Your task to perform on an android device: Search for Italian restaurants on Maps Image 0: 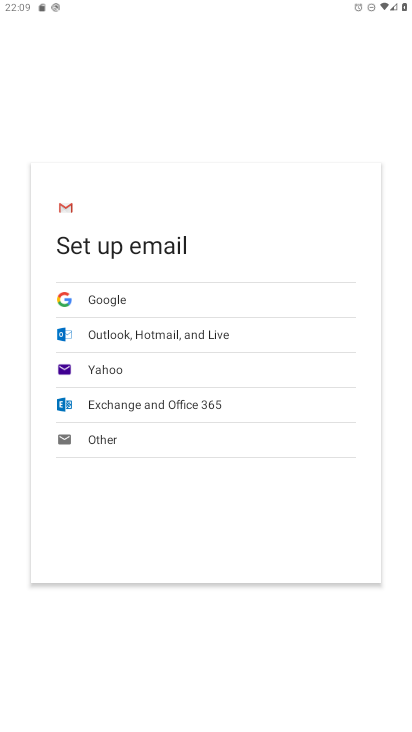
Step 0: press home button
Your task to perform on an android device: Search for Italian restaurants on Maps Image 1: 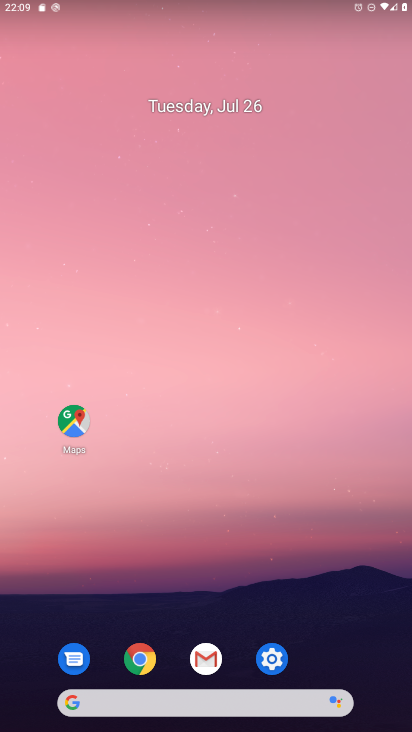
Step 1: click (78, 408)
Your task to perform on an android device: Search for Italian restaurants on Maps Image 2: 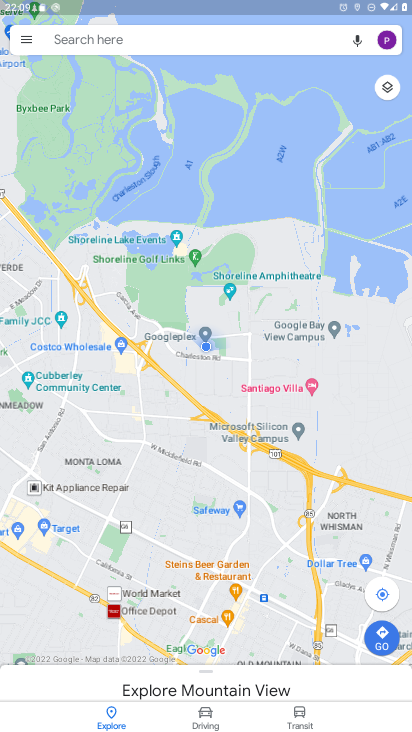
Step 2: click (74, 41)
Your task to perform on an android device: Search for Italian restaurants on Maps Image 3: 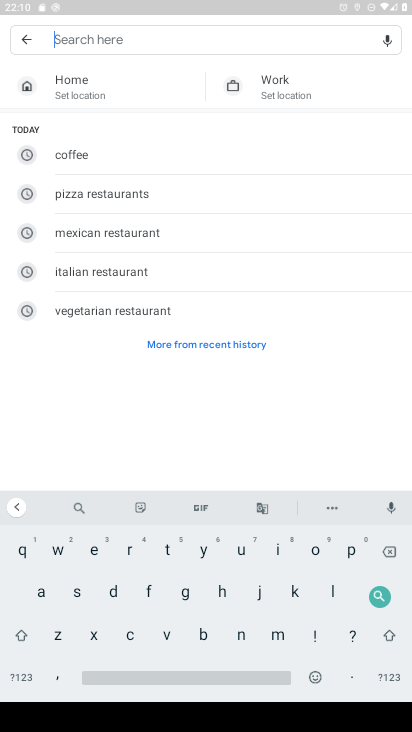
Step 3: click (127, 269)
Your task to perform on an android device: Search for Italian restaurants on Maps Image 4: 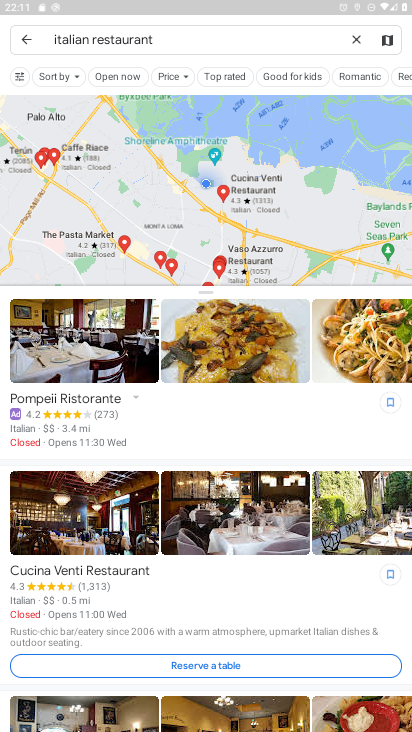
Step 4: task complete